Your task to perform on an android device: Show the shopping cart on amazon.com. Add "usb-b" to the cart on amazon.com Image 0: 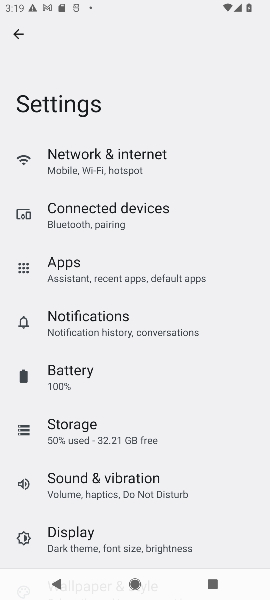
Step 0: press home button
Your task to perform on an android device: Show the shopping cart on amazon.com. Add "usb-b" to the cart on amazon.com Image 1: 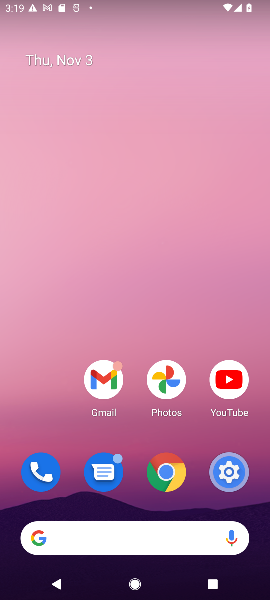
Step 1: click (159, 535)
Your task to perform on an android device: Show the shopping cart on amazon.com. Add "usb-b" to the cart on amazon.com Image 2: 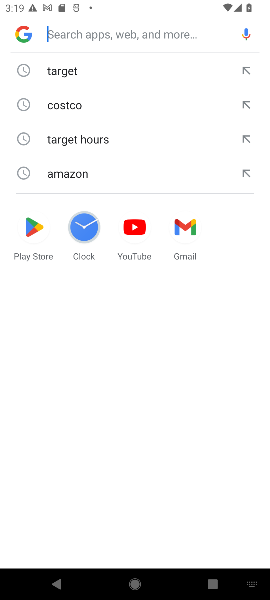
Step 2: click (81, 167)
Your task to perform on an android device: Show the shopping cart on amazon.com. Add "usb-b" to the cart on amazon.com Image 3: 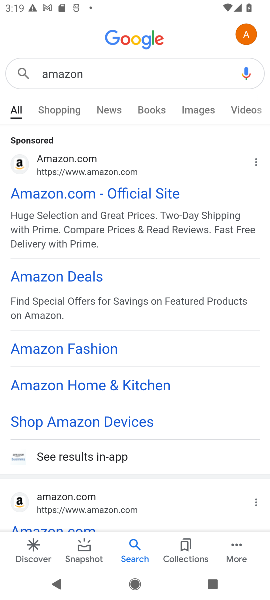
Step 3: click (75, 200)
Your task to perform on an android device: Show the shopping cart on amazon.com. Add "usb-b" to the cart on amazon.com Image 4: 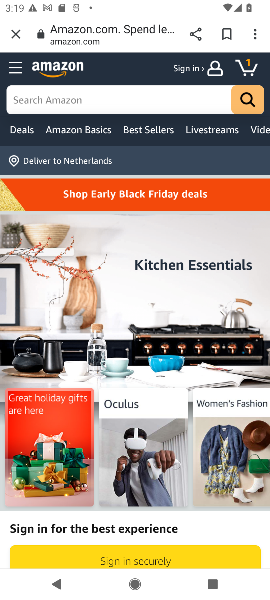
Step 4: click (155, 96)
Your task to perform on an android device: Show the shopping cart on amazon.com. Add "usb-b" to the cart on amazon.com Image 5: 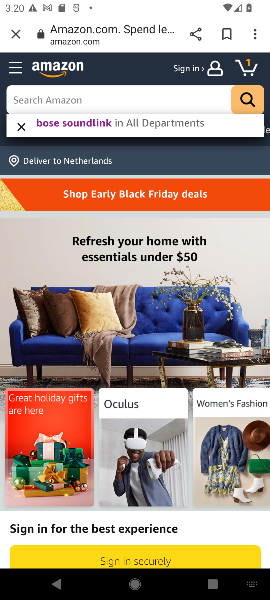
Step 5: type "usb-b "
Your task to perform on an android device: Show the shopping cart on amazon.com. Add "usb-b" to the cart on amazon.com Image 6: 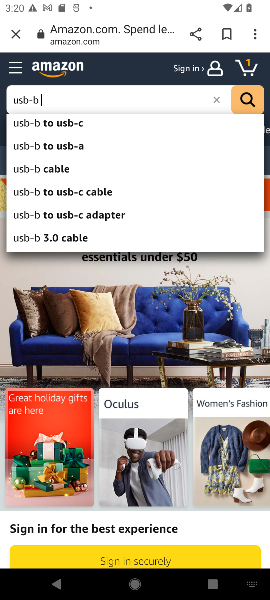
Step 6: click (53, 169)
Your task to perform on an android device: Show the shopping cart on amazon.com. Add "usb-b" to the cart on amazon.com Image 7: 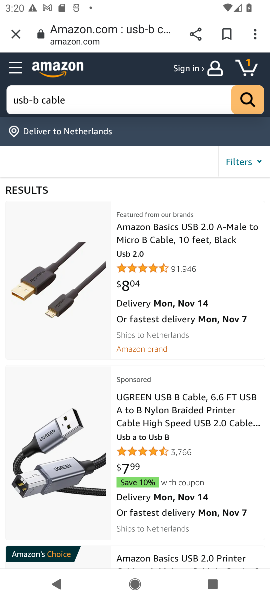
Step 7: click (119, 229)
Your task to perform on an android device: Show the shopping cart on amazon.com. Add "usb-b" to the cart on amazon.com Image 8: 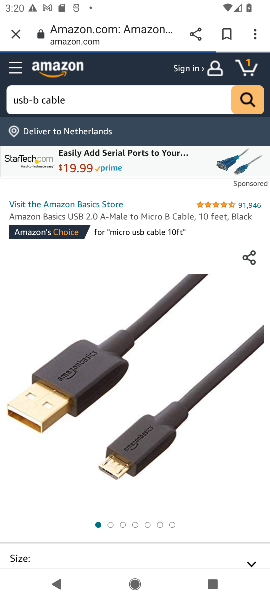
Step 8: drag from (100, 471) to (109, 136)
Your task to perform on an android device: Show the shopping cart on amazon.com. Add "usb-b" to the cart on amazon.com Image 9: 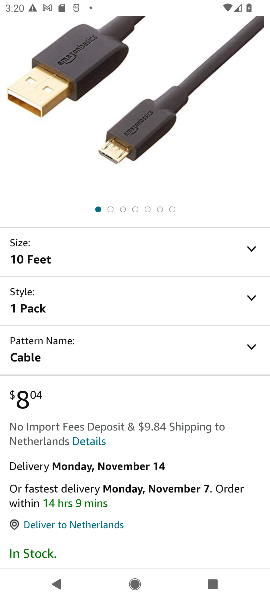
Step 9: drag from (138, 522) to (141, 50)
Your task to perform on an android device: Show the shopping cart on amazon.com. Add "usb-b" to the cart on amazon.com Image 10: 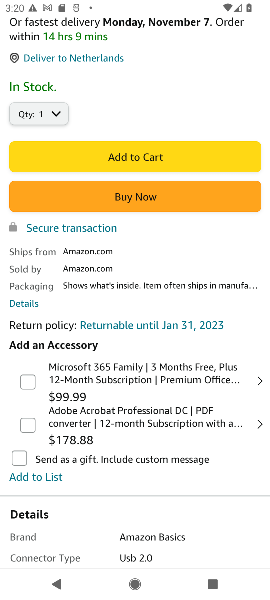
Step 10: click (169, 161)
Your task to perform on an android device: Show the shopping cart on amazon.com. Add "usb-b" to the cart on amazon.com Image 11: 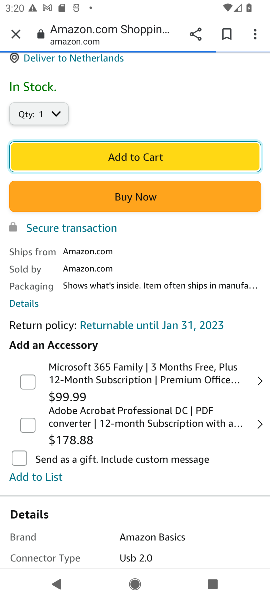
Step 11: task complete